Your task to perform on an android device: all mails in gmail Image 0: 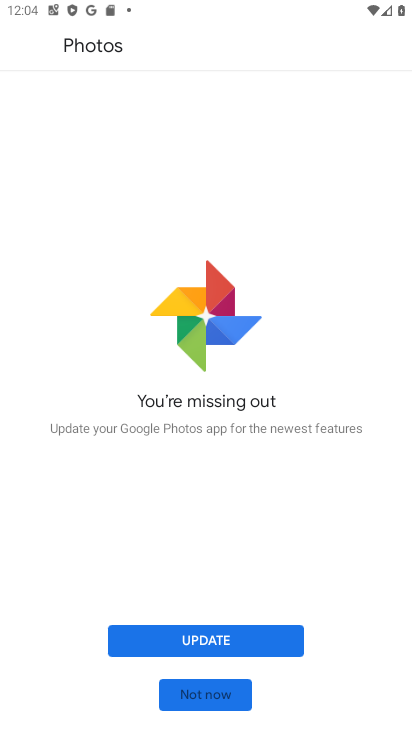
Step 0: press home button
Your task to perform on an android device: all mails in gmail Image 1: 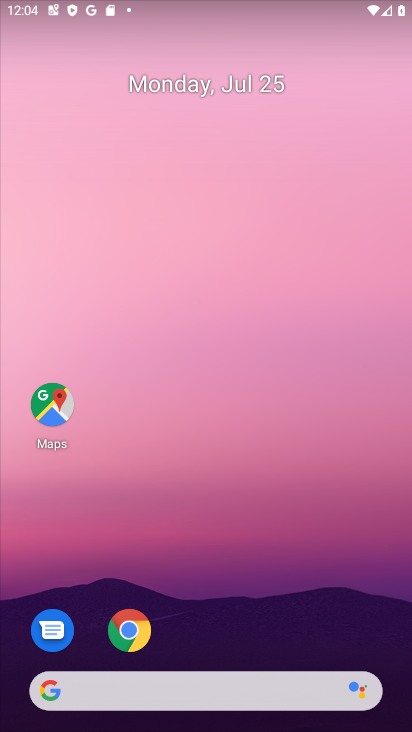
Step 1: drag from (394, 677) to (328, 59)
Your task to perform on an android device: all mails in gmail Image 2: 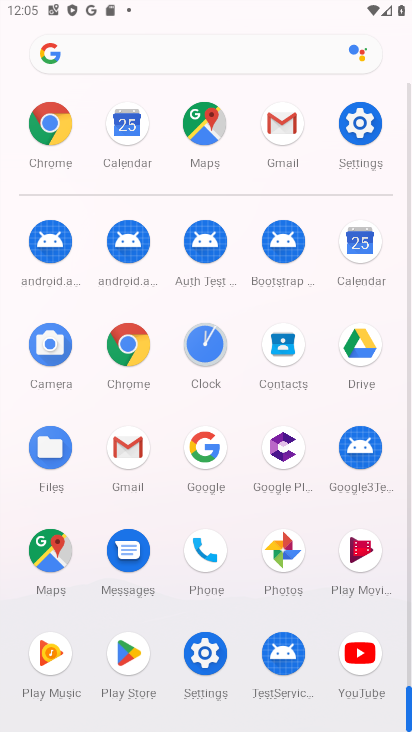
Step 2: click (162, 433)
Your task to perform on an android device: all mails in gmail Image 3: 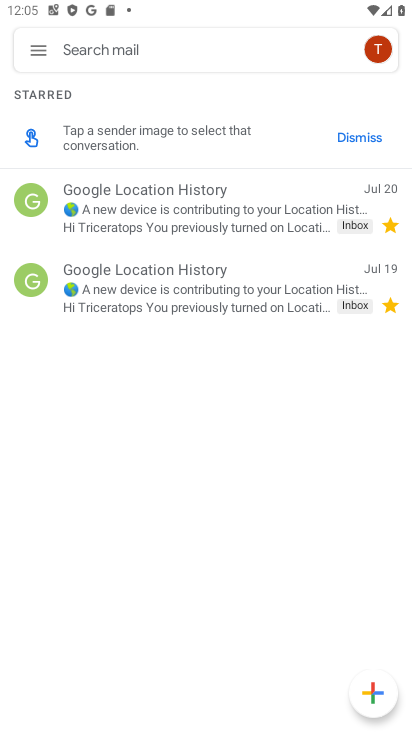
Step 3: click (36, 57)
Your task to perform on an android device: all mails in gmail Image 4: 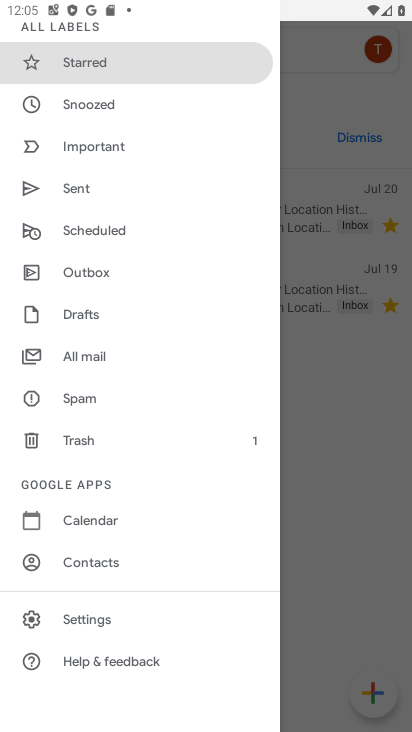
Step 4: drag from (103, 160) to (21, 730)
Your task to perform on an android device: all mails in gmail Image 5: 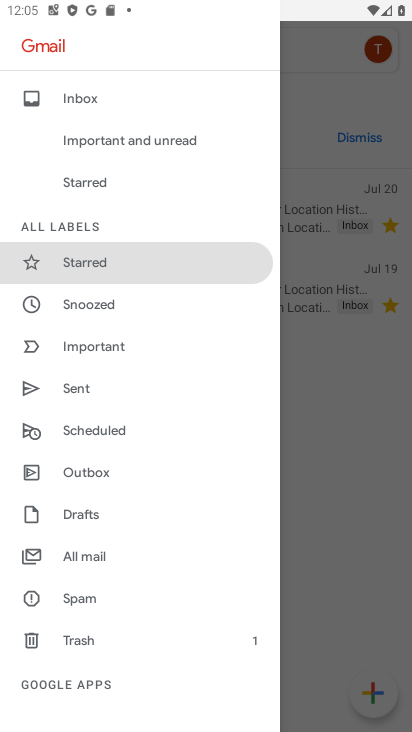
Step 5: click (101, 563)
Your task to perform on an android device: all mails in gmail Image 6: 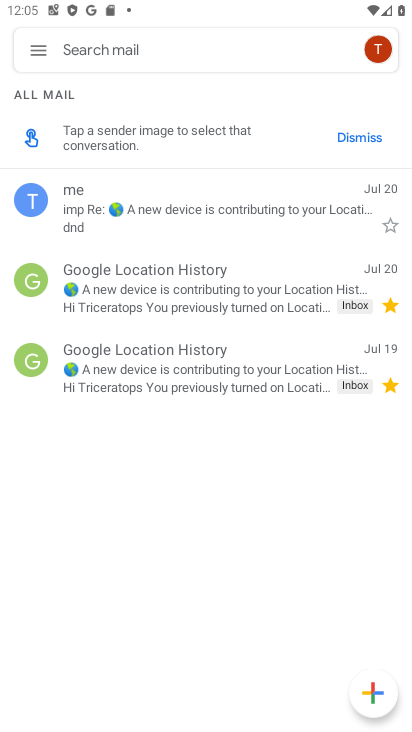
Step 6: task complete